Your task to perform on an android device: change alarm snooze length Image 0: 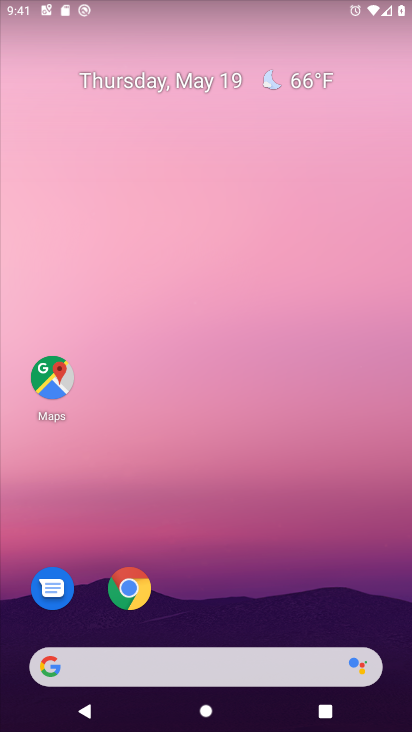
Step 0: drag from (380, 615) to (381, 238)
Your task to perform on an android device: change alarm snooze length Image 1: 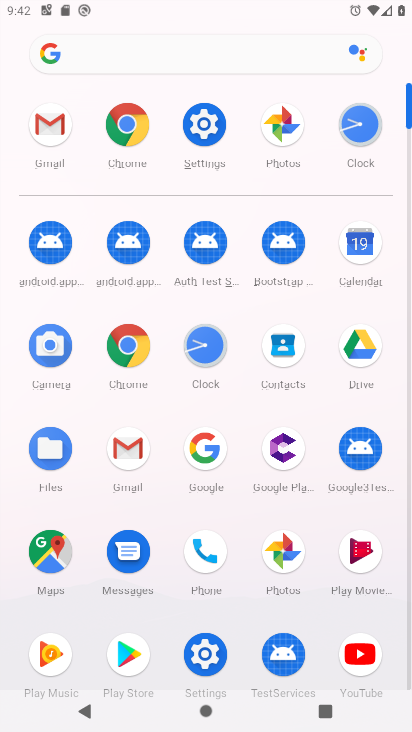
Step 1: click (211, 356)
Your task to perform on an android device: change alarm snooze length Image 2: 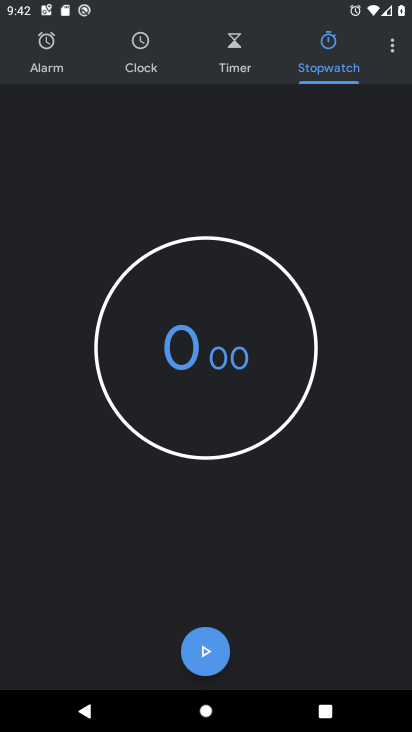
Step 2: click (394, 49)
Your task to perform on an android device: change alarm snooze length Image 3: 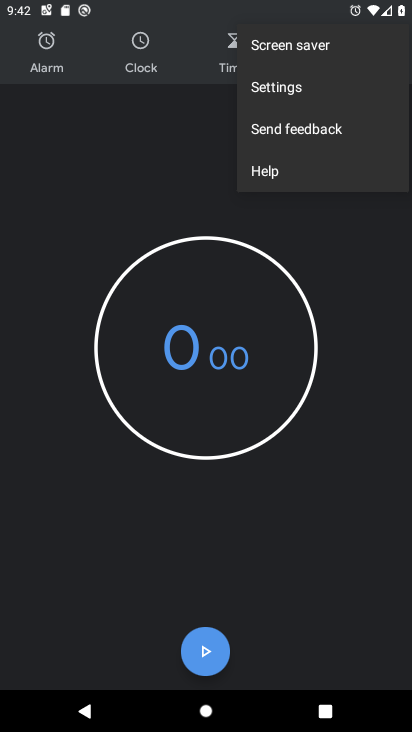
Step 3: click (330, 94)
Your task to perform on an android device: change alarm snooze length Image 4: 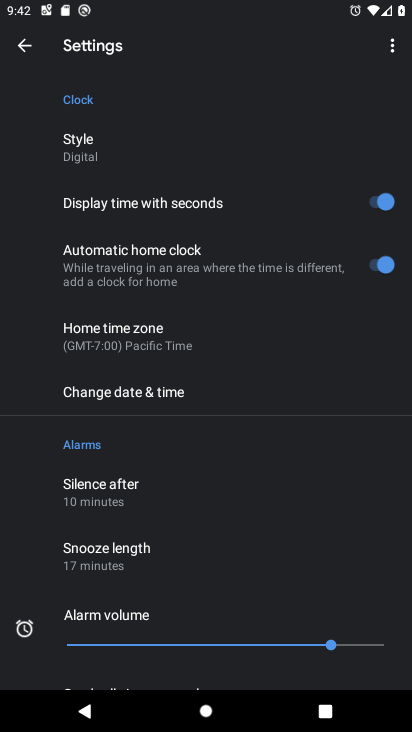
Step 4: drag from (320, 471) to (312, 354)
Your task to perform on an android device: change alarm snooze length Image 5: 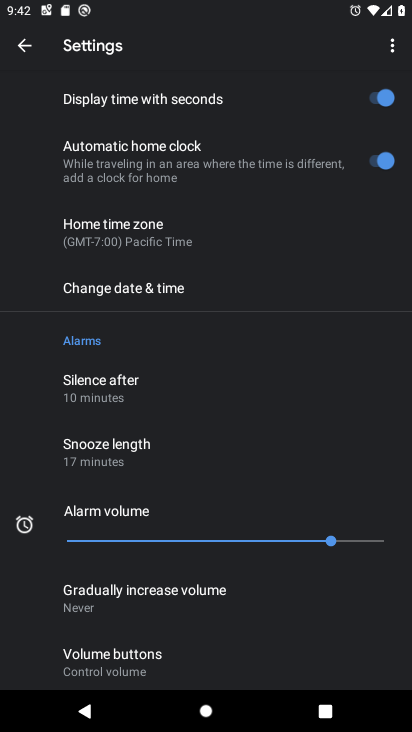
Step 5: drag from (302, 510) to (285, 337)
Your task to perform on an android device: change alarm snooze length Image 6: 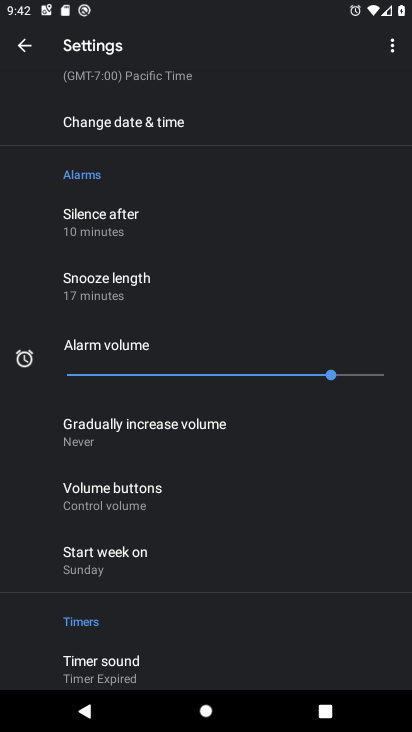
Step 6: drag from (297, 552) to (297, 405)
Your task to perform on an android device: change alarm snooze length Image 7: 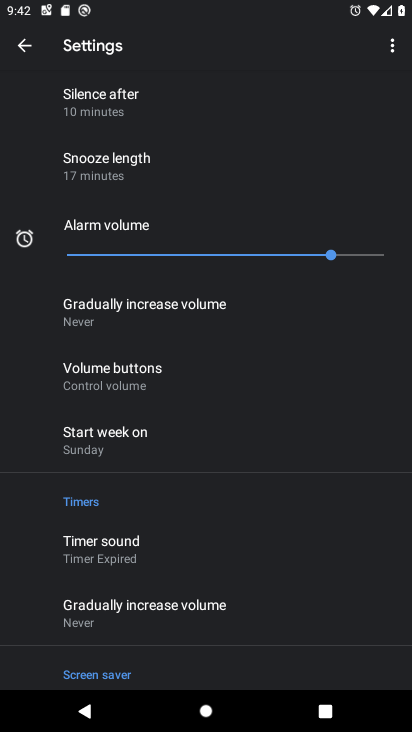
Step 7: drag from (304, 523) to (302, 442)
Your task to perform on an android device: change alarm snooze length Image 8: 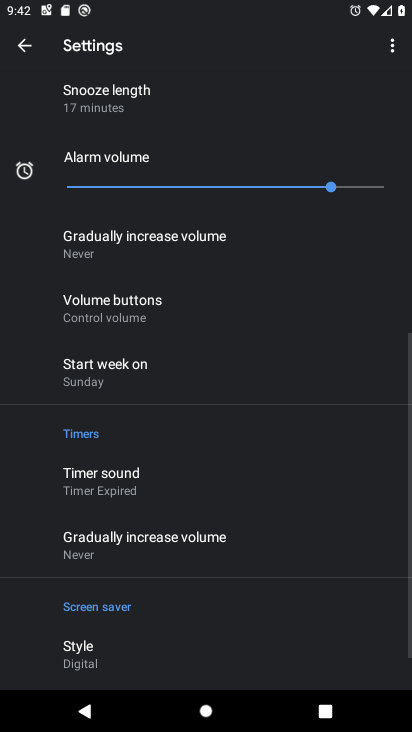
Step 8: drag from (302, 584) to (301, 483)
Your task to perform on an android device: change alarm snooze length Image 9: 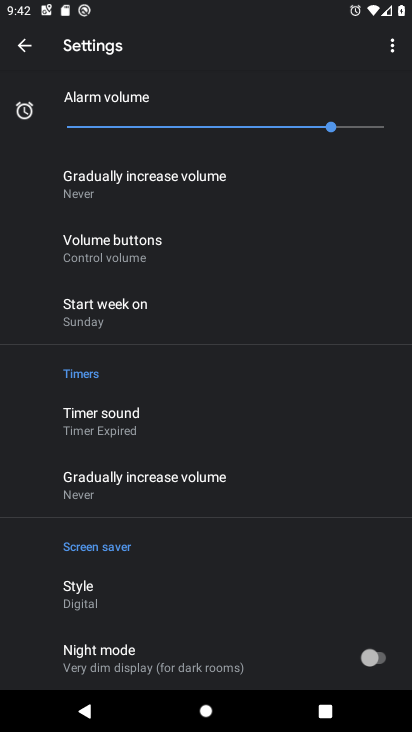
Step 9: drag from (299, 611) to (298, 477)
Your task to perform on an android device: change alarm snooze length Image 10: 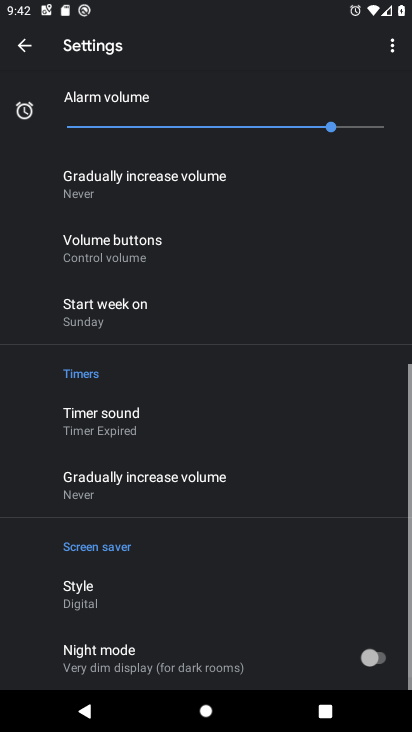
Step 10: drag from (294, 397) to (277, 517)
Your task to perform on an android device: change alarm snooze length Image 11: 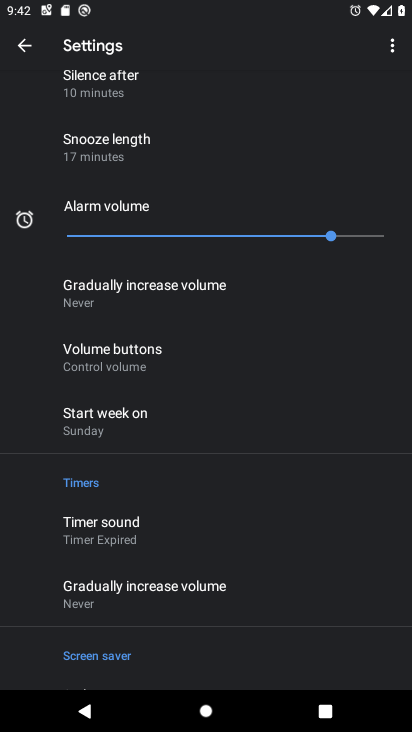
Step 11: drag from (289, 373) to (276, 488)
Your task to perform on an android device: change alarm snooze length Image 12: 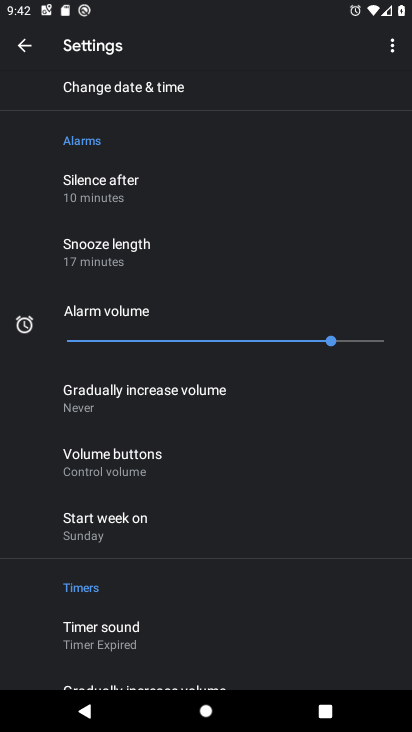
Step 12: drag from (280, 313) to (265, 495)
Your task to perform on an android device: change alarm snooze length Image 13: 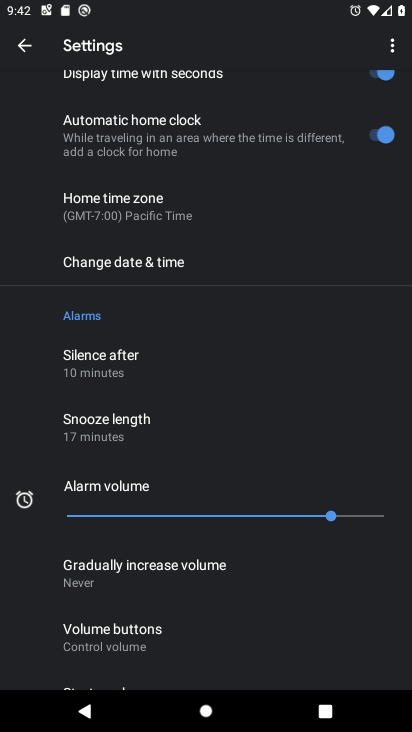
Step 13: drag from (235, 366) to (238, 432)
Your task to perform on an android device: change alarm snooze length Image 14: 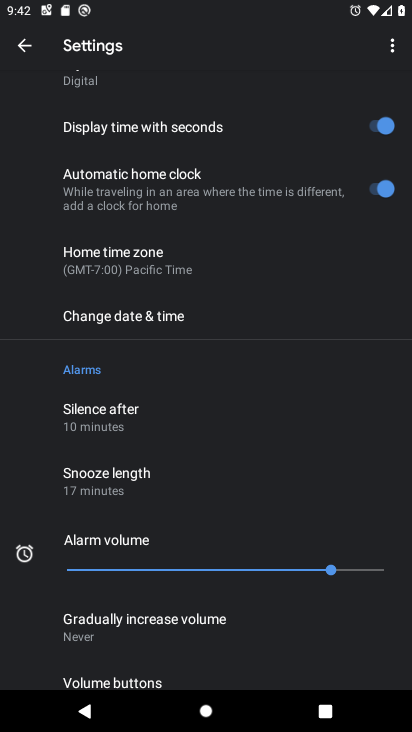
Step 14: drag from (239, 495) to (239, 430)
Your task to perform on an android device: change alarm snooze length Image 15: 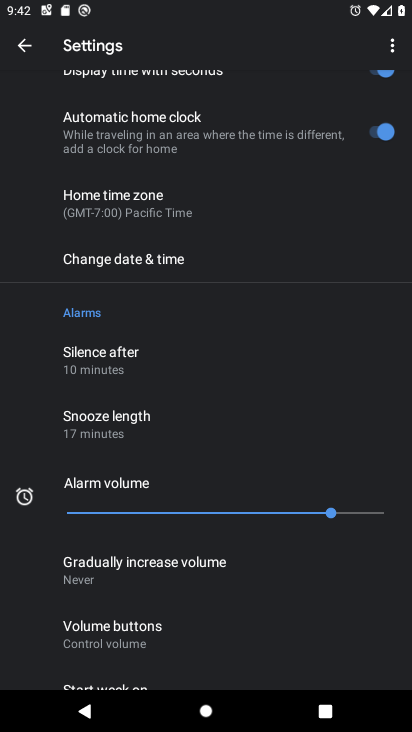
Step 15: click (208, 423)
Your task to perform on an android device: change alarm snooze length Image 16: 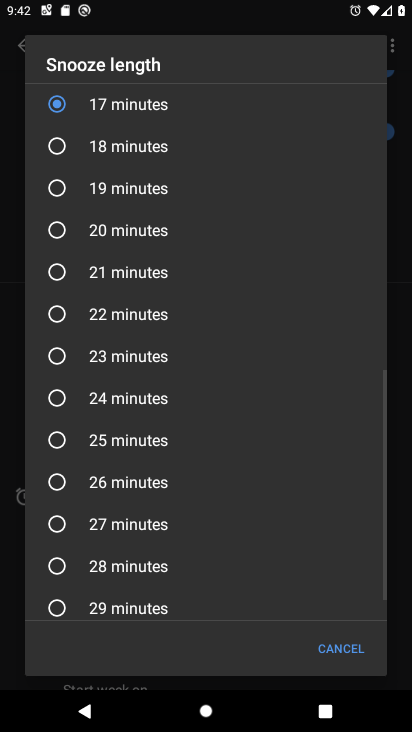
Step 16: click (118, 398)
Your task to perform on an android device: change alarm snooze length Image 17: 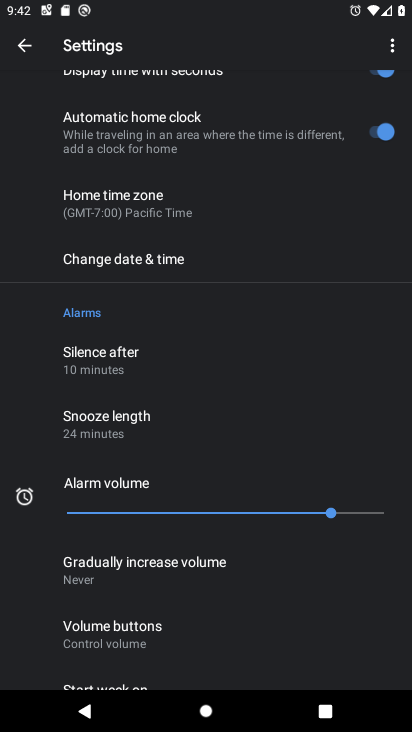
Step 17: task complete